Your task to perform on an android device: clear history in the chrome app Image 0: 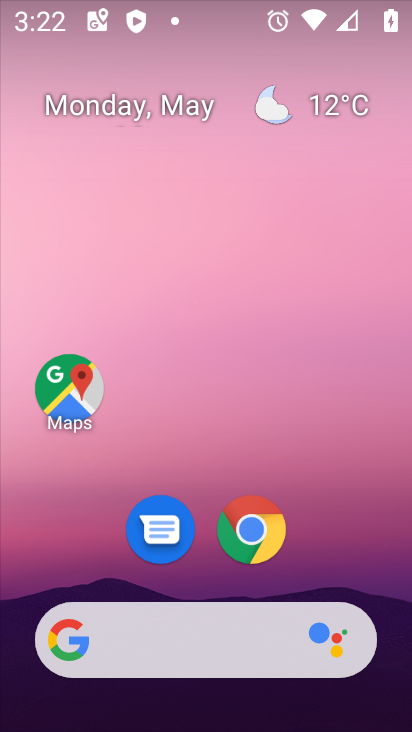
Step 0: click (254, 525)
Your task to perform on an android device: clear history in the chrome app Image 1: 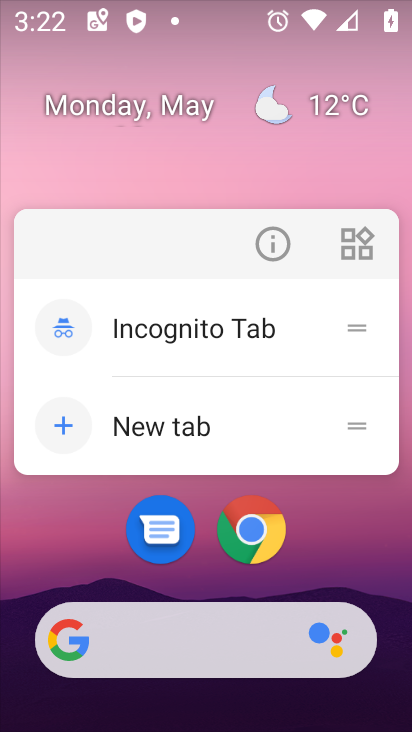
Step 1: click (254, 525)
Your task to perform on an android device: clear history in the chrome app Image 2: 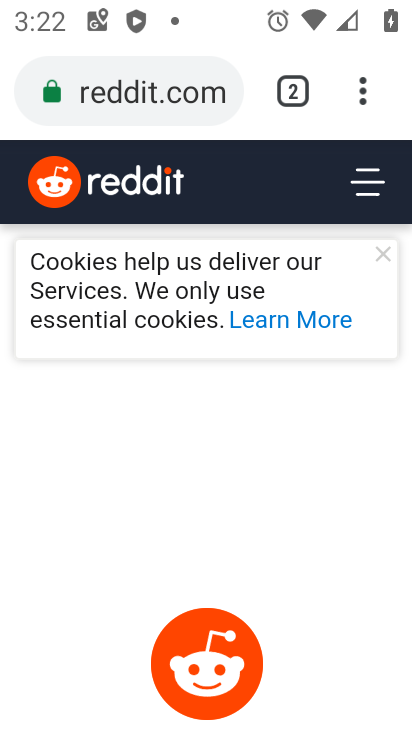
Step 2: click (363, 91)
Your task to perform on an android device: clear history in the chrome app Image 3: 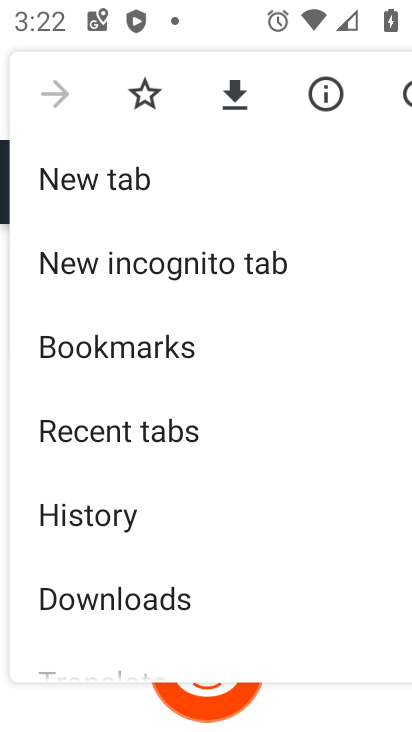
Step 3: click (154, 524)
Your task to perform on an android device: clear history in the chrome app Image 4: 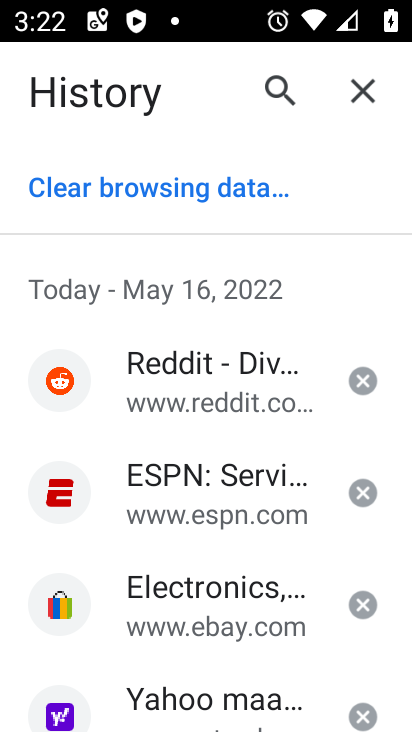
Step 4: click (98, 186)
Your task to perform on an android device: clear history in the chrome app Image 5: 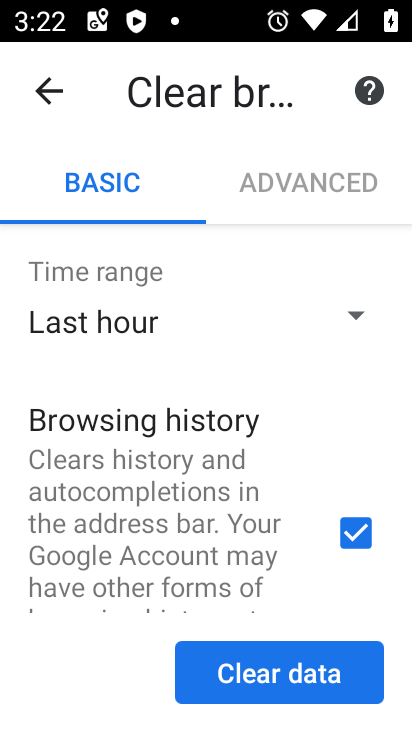
Step 5: click (248, 666)
Your task to perform on an android device: clear history in the chrome app Image 6: 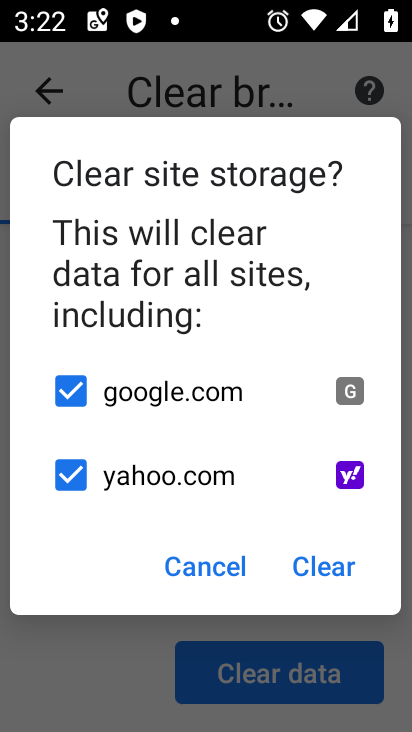
Step 6: click (356, 567)
Your task to perform on an android device: clear history in the chrome app Image 7: 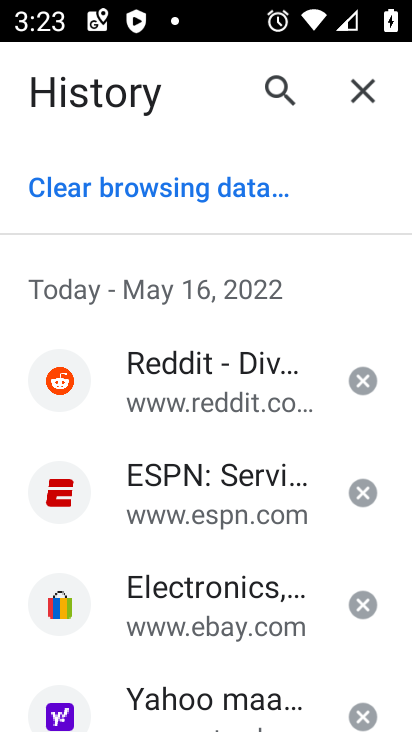
Step 7: task complete